Your task to perform on an android device: turn on improve location accuracy Image 0: 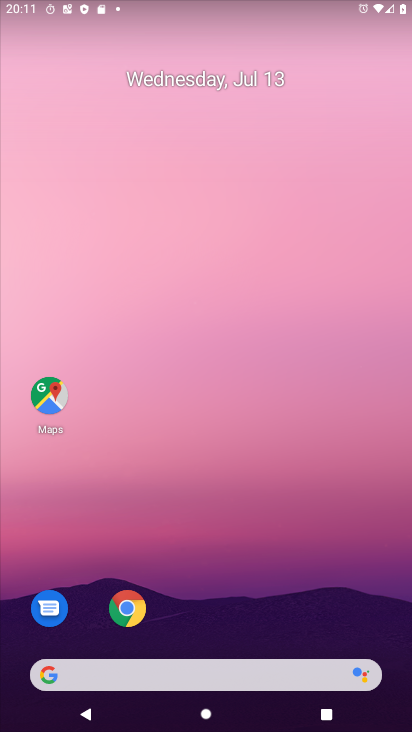
Step 0: drag from (187, 625) to (182, 133)
Your task to perform on an android device: turn on improve location accuracy Image 1: 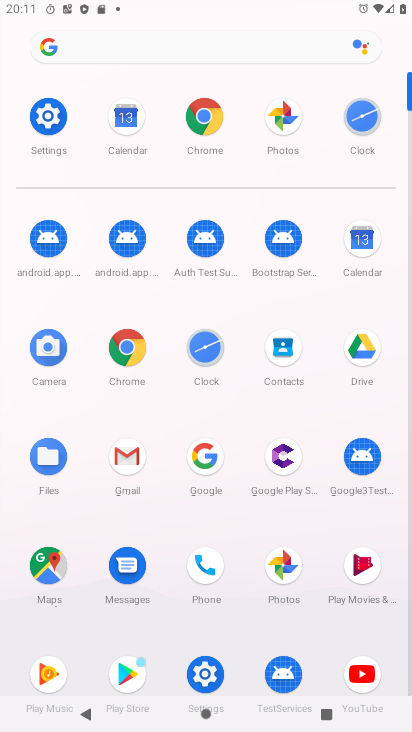
Step 1: click (35, 113)
Your task to perform on an android device: turn on improve location accuracy Image 2: 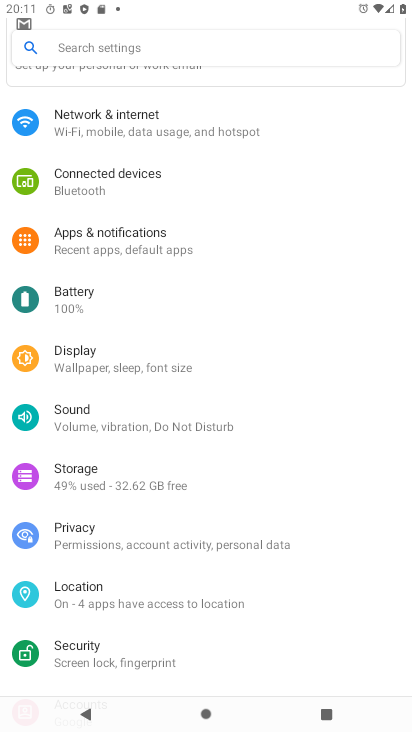
Step 2: click (128, 594)
Your task to perform on an android device: turn on improve location accuracy Image 3: 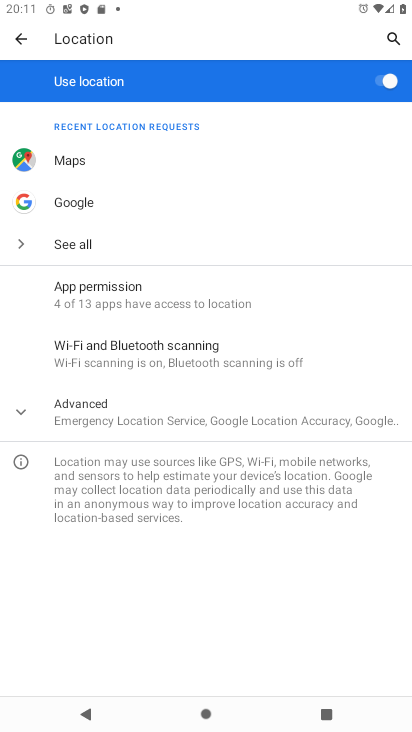
Step 3: click (116, 417)
Your task to perform on an android device: turn on improve location accuracy Image 4: 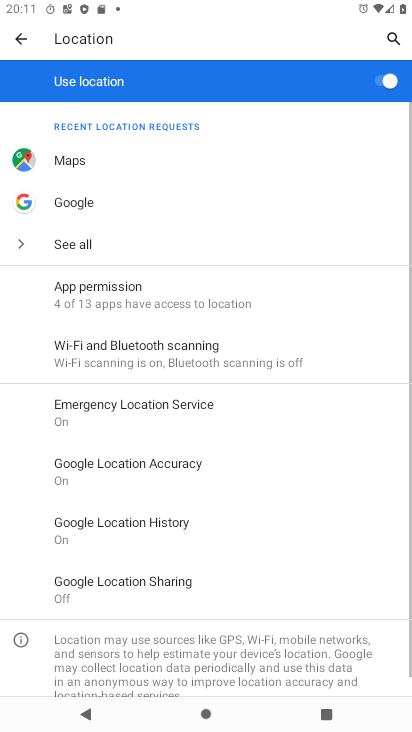
Step 4: click (138, 472)
Your task to perform on an android device: turn on improve location accuracy Image 5: 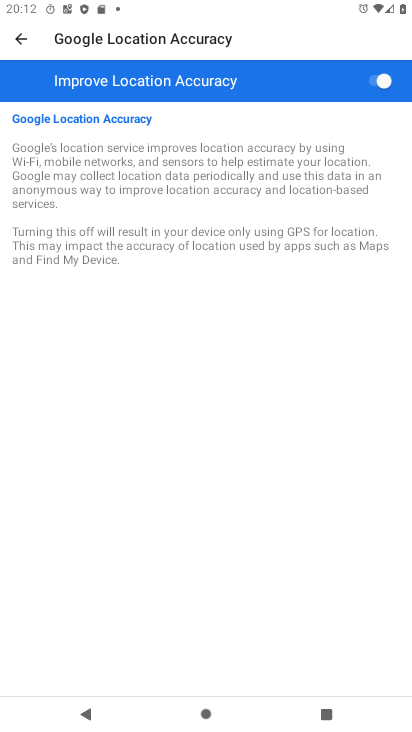
Step 5: click (378, 78)
Your task to perform on an android device: turn on improve location accuracy Image 6: 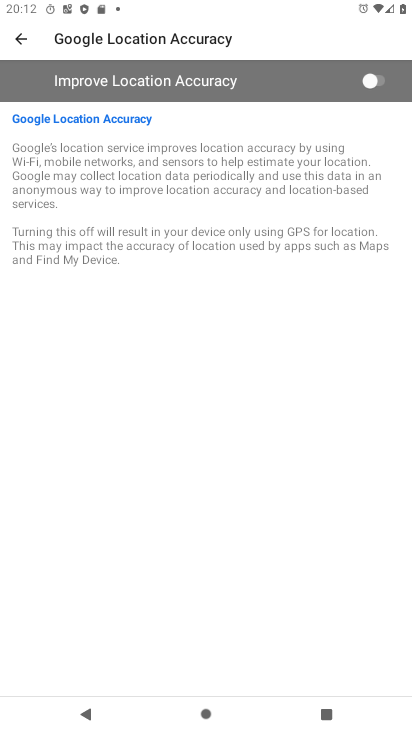
Step 6: click (381, 78)
Your task to perform on an android device: turn on improve location accuracy Image 7: 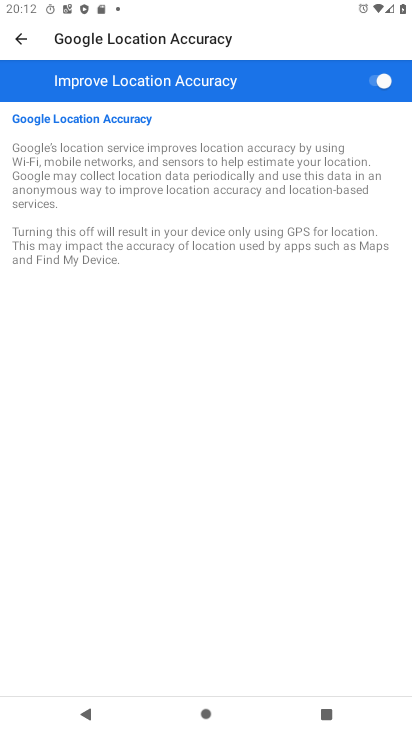
Step 7: task complete